Your task to perform on an android device: What's the weather today? Image 0: 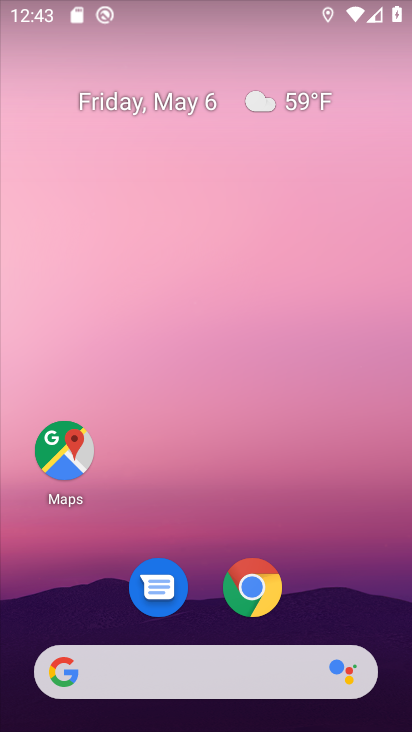
Step 0: click (66, 672)
Your task to perform on an android device: What's the weather today? Image 1: 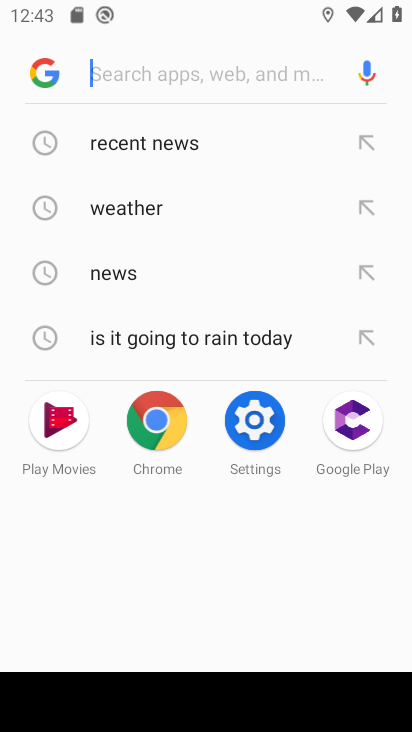
Step 1: click (161, 206)
Your task to perform on an android device: What's the weather today? Image 2: 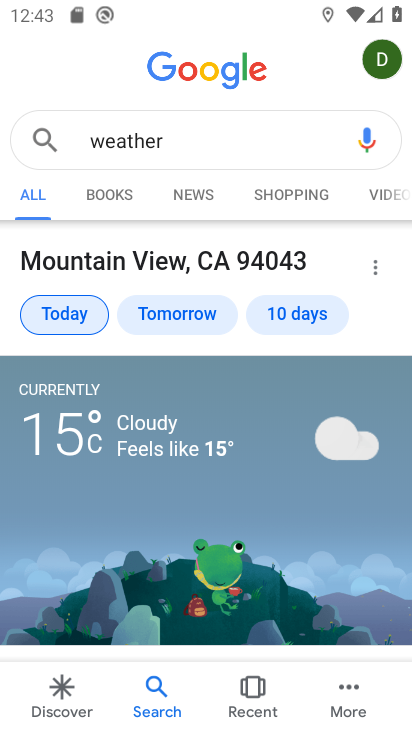
Step 2: task complete